Your task to perform on an android device: allow notifications from all sites in the chrome app Image 0: 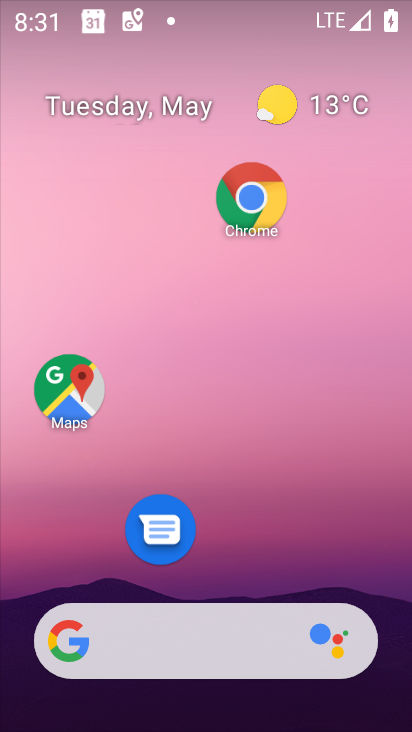
Step 0: click (344, 104)
Your task to perform on an android device: allow notifications from all sites in the chrome app Image 1: 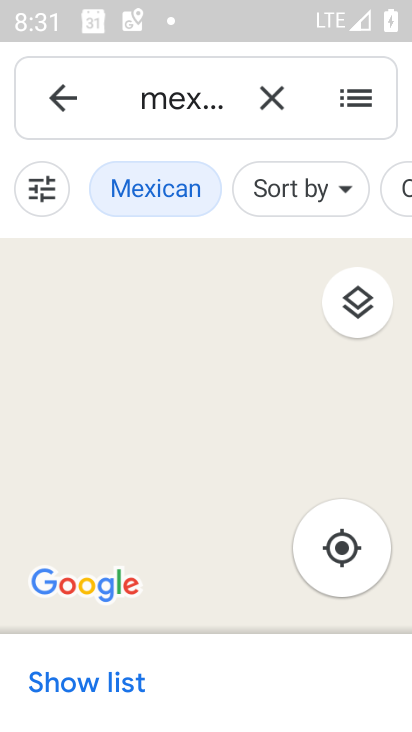
Step 1: press home button
Your task to perform on an android device: allow notifications from all sites in the chrome app Image 2: 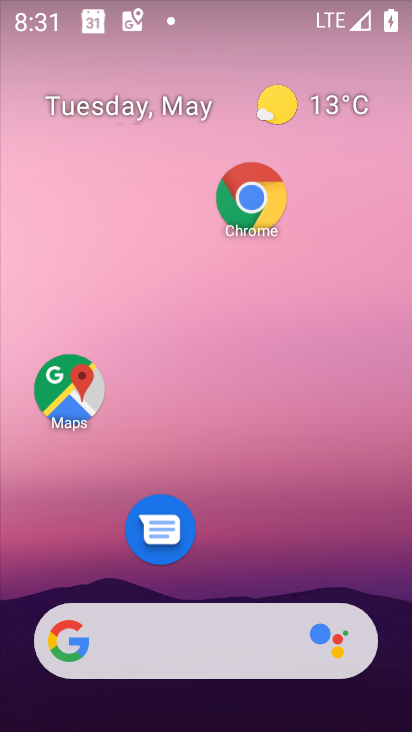
Step 2: click (246, 197)
Your task to perform on an android device: allow notifications from all sites in the chrome app Image 3: 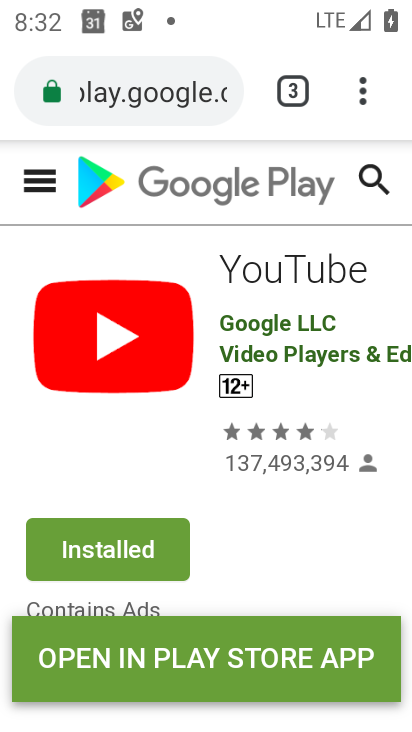
Step 3: click (303, 102)
Your task to perform on an android device: allow notifications from all sites in the chrome app Image 4: 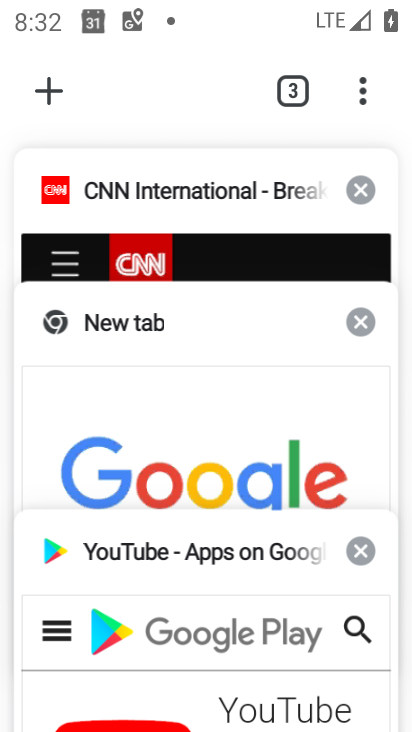
Step 4: click (355, 86)
Your task to perform on an android device: allow notifications from all sites in the chrome app Image 5: 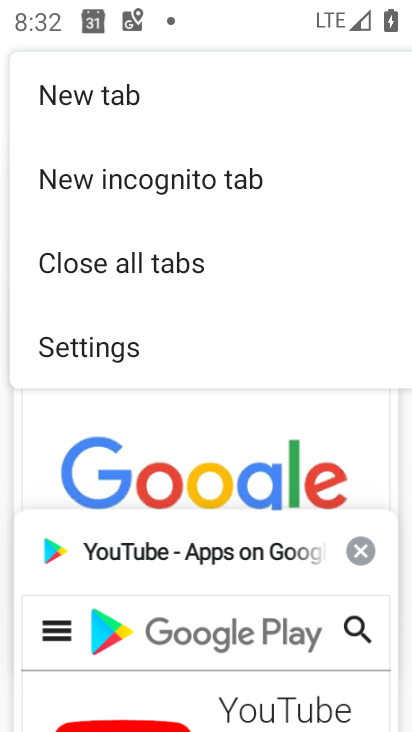
Step 5: click (163, 367)
Your task to perform on an android device: allow notifications from all sites in the chrome app Image 6: 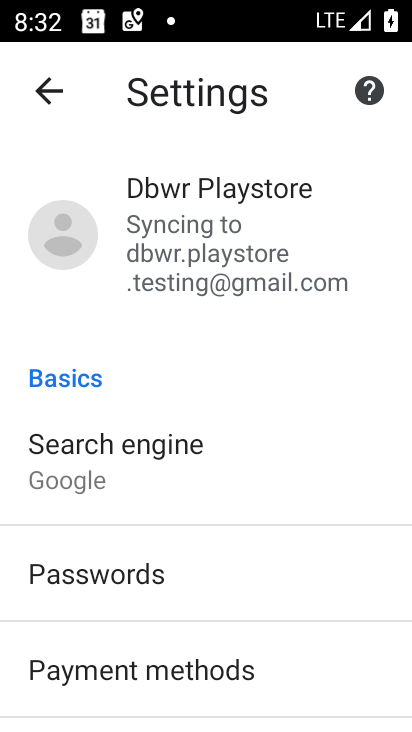
Step 6: drag from (150, 654) to (243, 231)
Your task to perform on an android device: allow notifications from all sites in the chrome app Image 7: 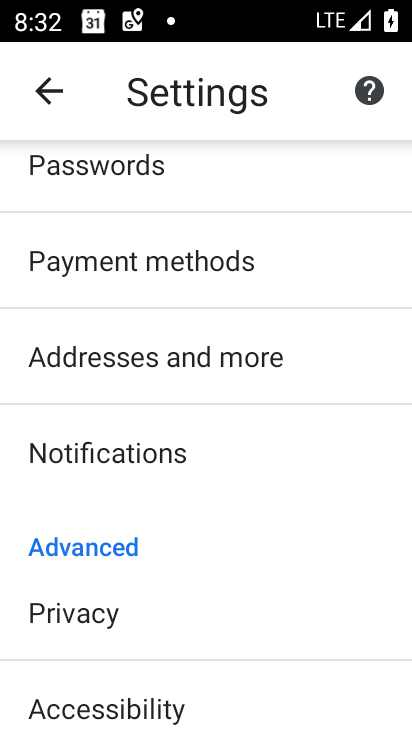
Step 7: drag from (197, 578) to (244, 250)
Your task to perform on an android device: allow notifications from all sites in the chrome app Image 8: 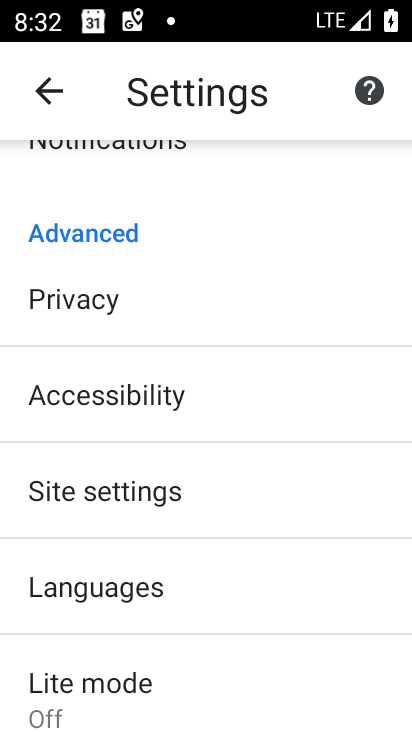
Step 8: click (173, 494)
Your task to perform on an android device: allow notifications from all sites in the chrome app Image 9: 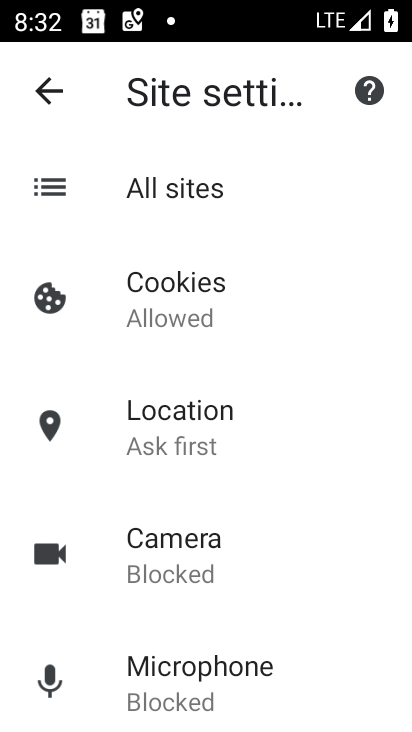
Step 9: click (214, 202)
Your task to perform on an android device: allow notifications from all sites in the chrome app Image 10: 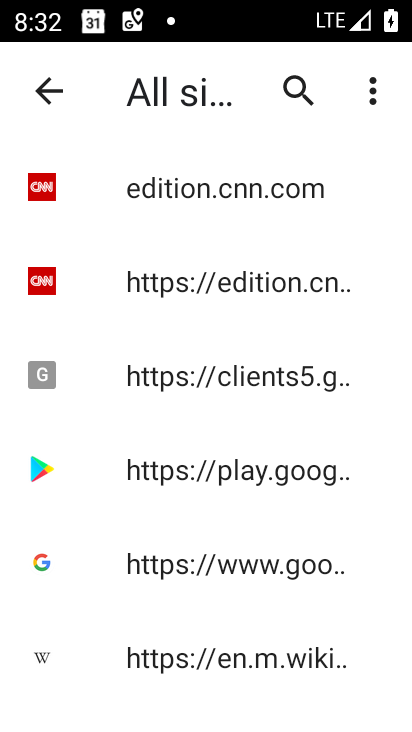
Step 10: task complete